Your task to perform on an android device: Open settings on Google Maps Image 0: 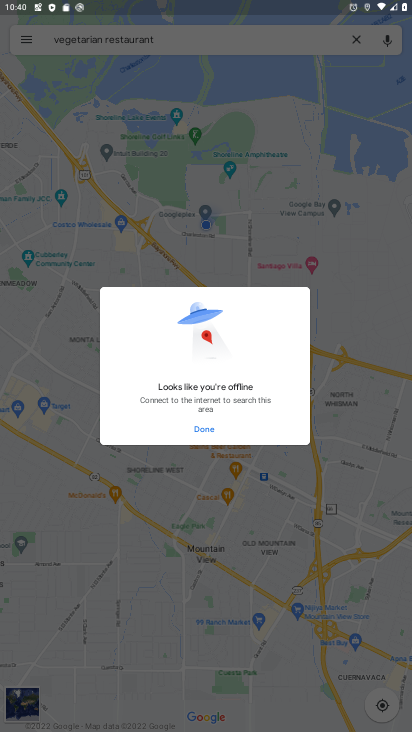
Step 0: click (22, 42)
Your task to perform on an android device: Open settings on Google Maps Image 1: 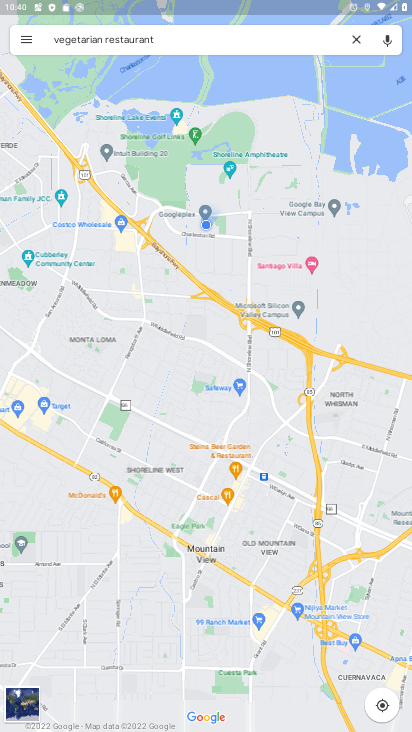
Step 1: click (36, 41)
Your task to perform on an android device: Open settings on Google Maps Image 2: 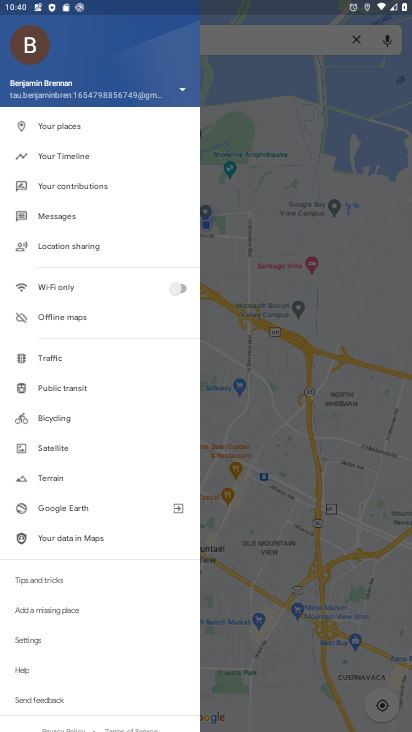
Step 2: click (46, 642)
Your task to perform on an android device: Open settings on Google Maps Image 3: 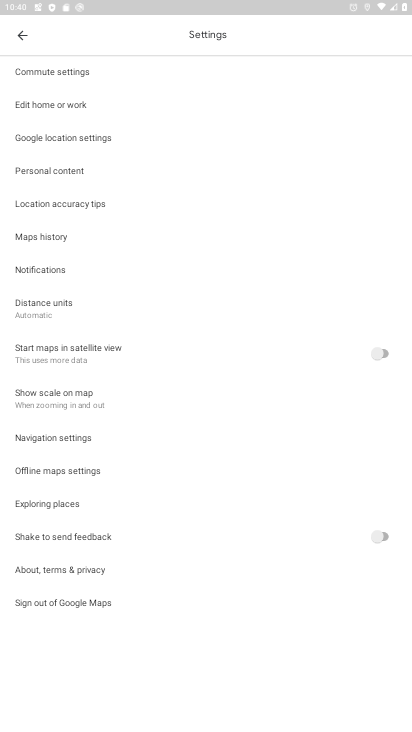
Step 3: task complete